Your task to perform on an android device: Is it going to rain tomorrow? Image 0: 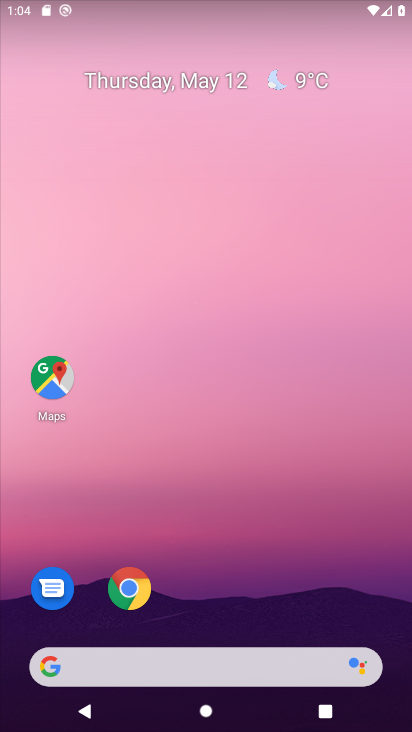
Step 0: drag from (230, 555) to (278, 45)
Your task to perform on an android device: Is it going to rain tomorrow? Image 1: 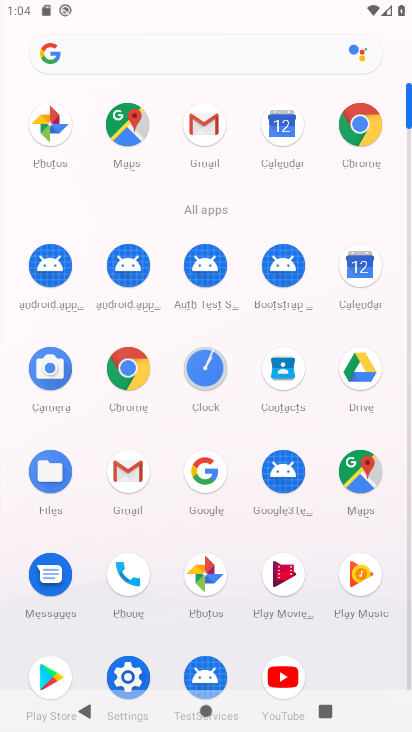
Step 1: press home button
Your task to perform on an android device: Is it going to rain tomorrow? Image 2: 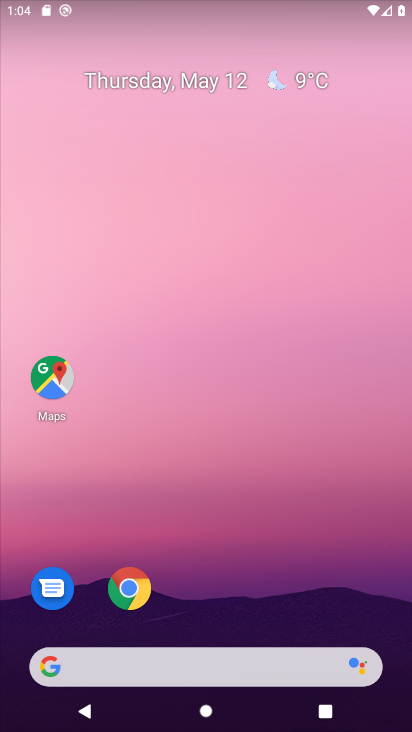
Step 2: click (305, 78)
Your task to perform on an android device: Is it going to rain tomorrow? Image 3: 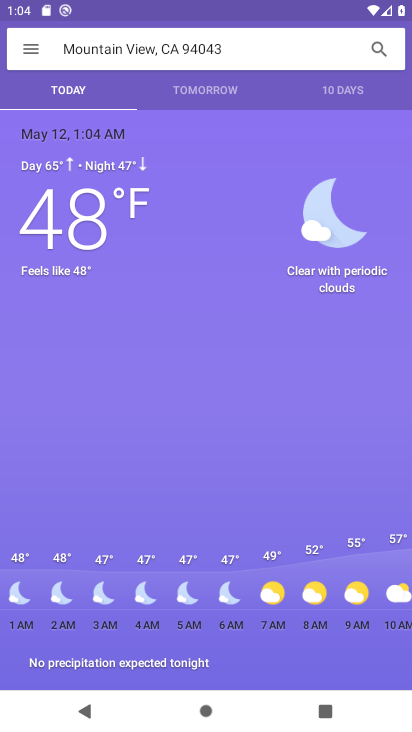
Step 3: task complete